Your task to perform on an android device: turn on airplane mode Image 0: 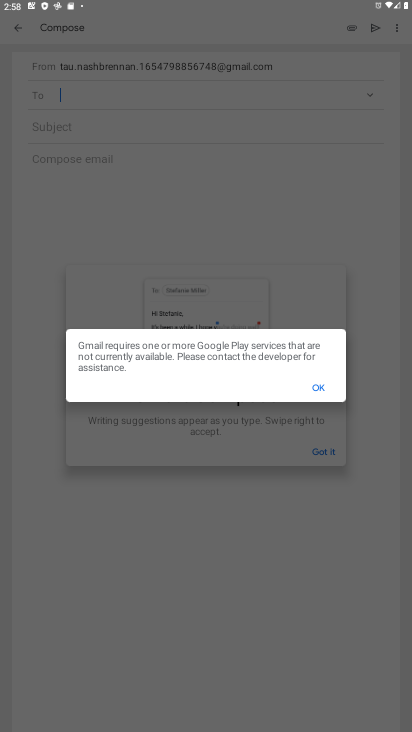
Step 0: press home button
Your task to perform on an android device: turn on airplane mode Image 1: 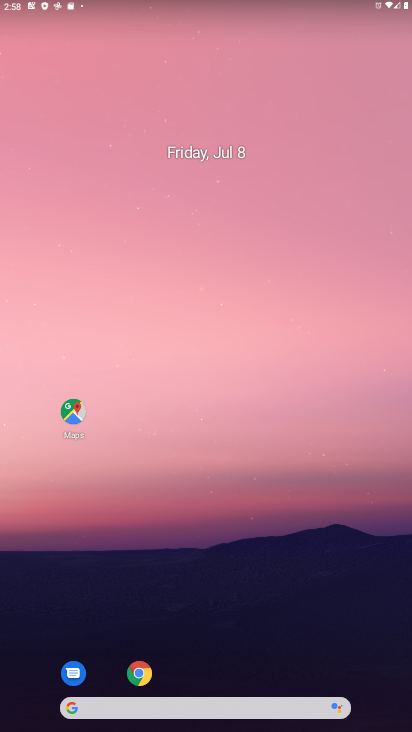
Step 1: drag from (363, 591) to (321, 146)
Your task to perform on an android device: turn on airplane mode Image 2: 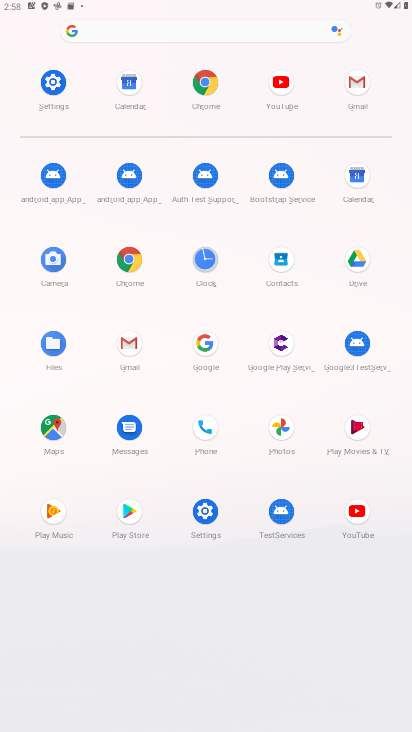
Step 2: click (43, 89)
Your task to perform on an android device: turn on airplane mode Image 3: 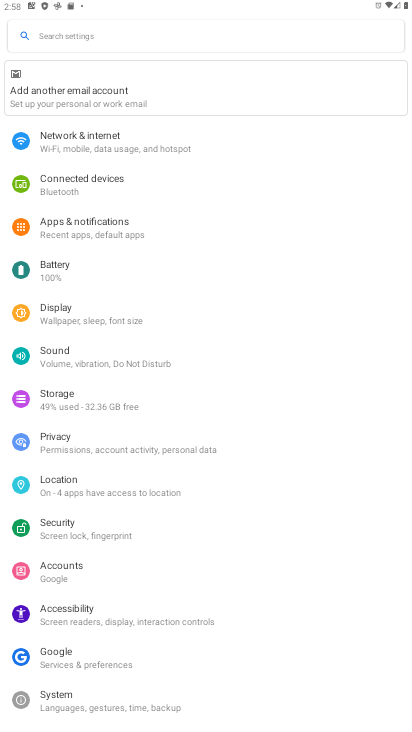
Step 3: click (156, 139)
Your task to perform on an android device: turn on airplane mode Image 4: 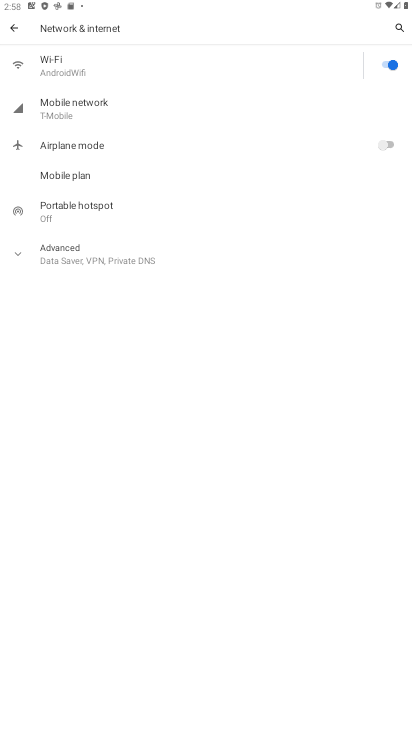
Step 4: click (385, 140)
Your task to perform on an android device: turn on airplane mode Image 5: 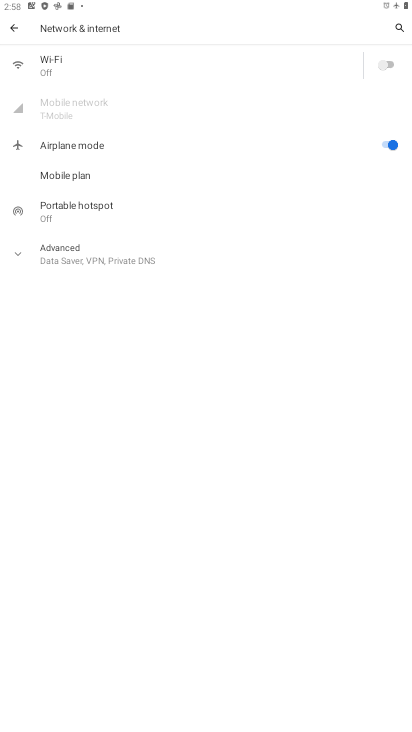
Step 5: task complete